Your task to perform on an android device: move a message to another label in the gmail app Image 0: 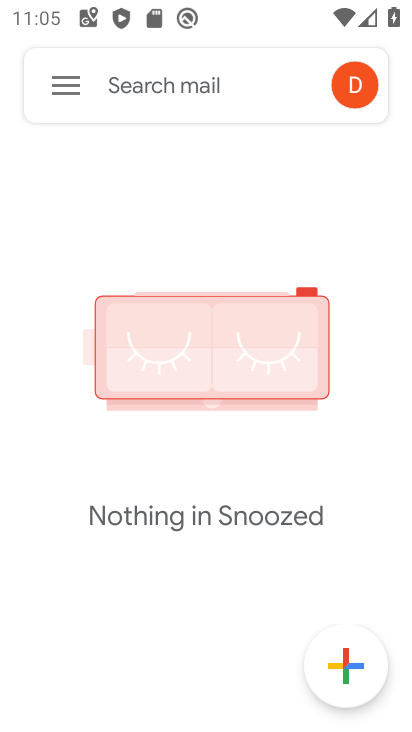
Step 0: press home button
Your task to perform on an android device: move a message to another label in the gmail app Image 1: 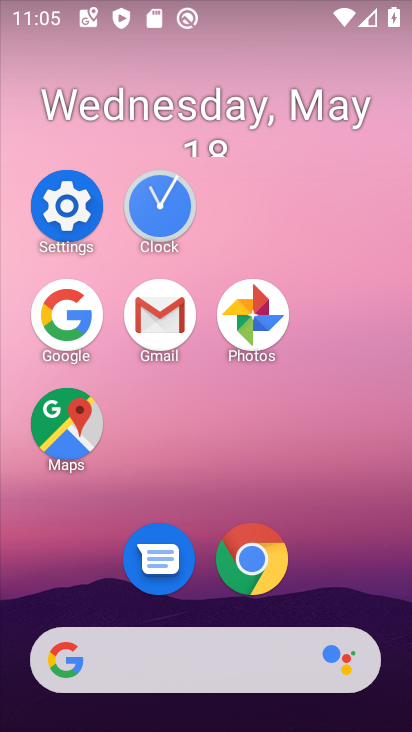
Step 1: click (163, 314)
Your task to perform on an android device: move a message to another label in the gmail app Image 2: 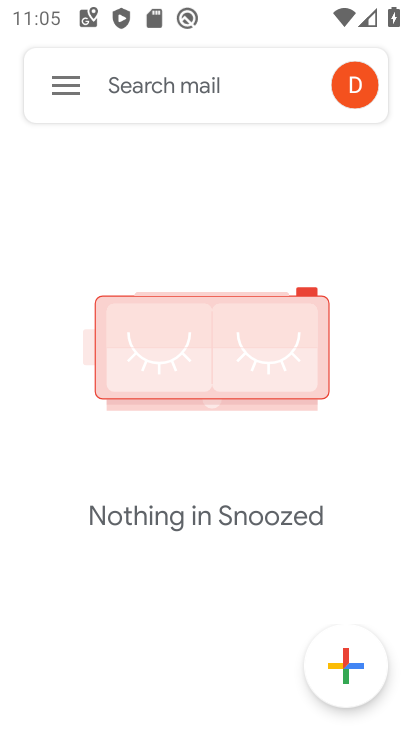
Step 2: click (76, 93)
Your task to perform on an android device: move a message to another label in the gmail app Image 3: 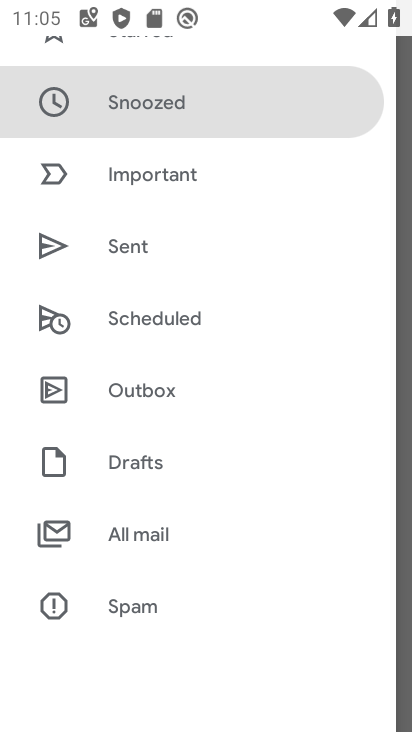
Step 3: click (166, 529)
Your task to perform on an android device: move a message to another label in the gmail app Image 4: 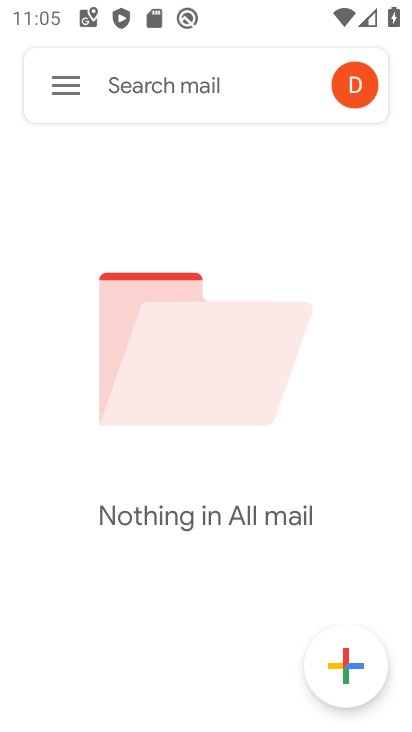
Step 4: task complete